Your task to perform on an android device: Open the map Image 0: 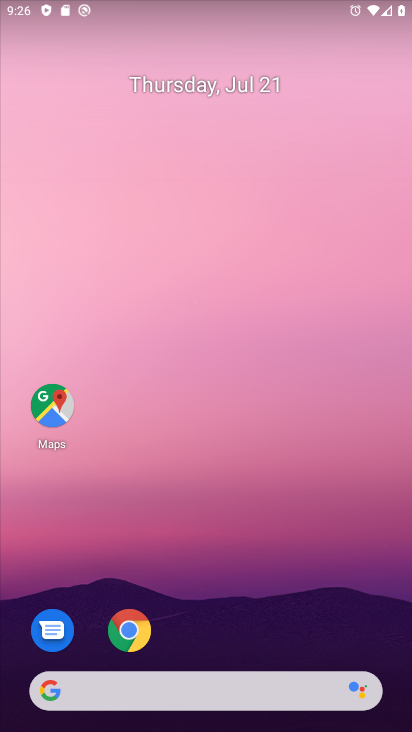
Step 0: drag from (219, 723) to (250, 101)
Your task to perform on an android device: Open the map Image 1: 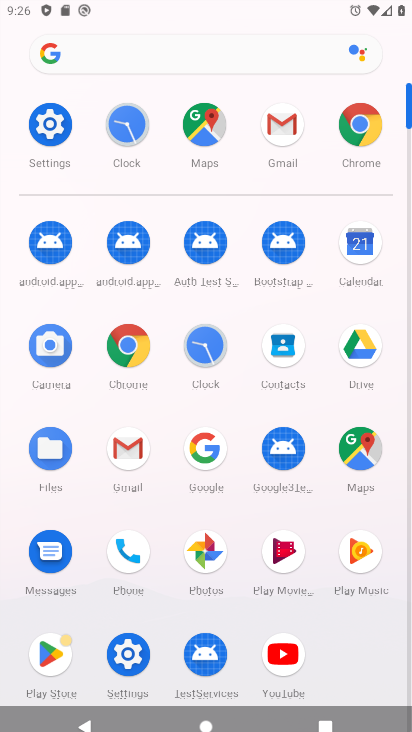
Step 1: click (362, 460)
Your task to perform on an android device: Open the map Image 2: 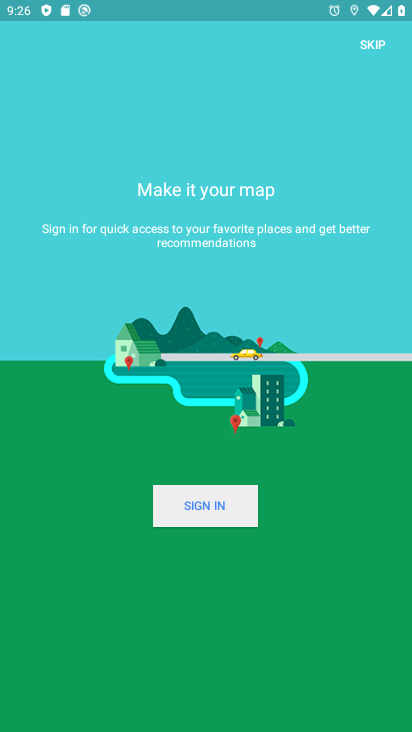
Step 2: task complete